Your task to perform on an android device: empty trash in google photos Image 0: 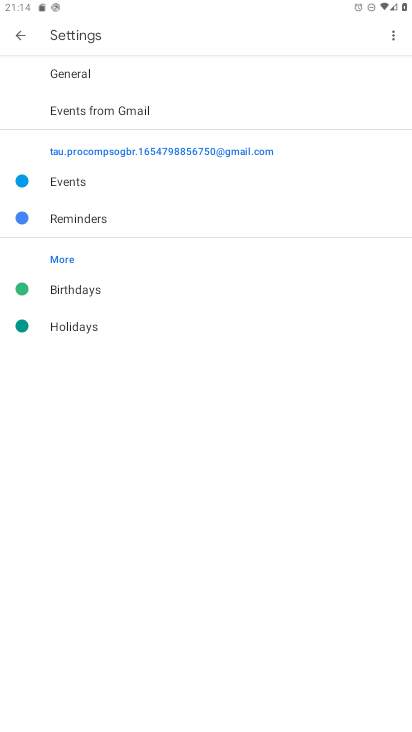
Step 0: press home button
Your task to perform on an android device: empty trash in google photos Image 1: 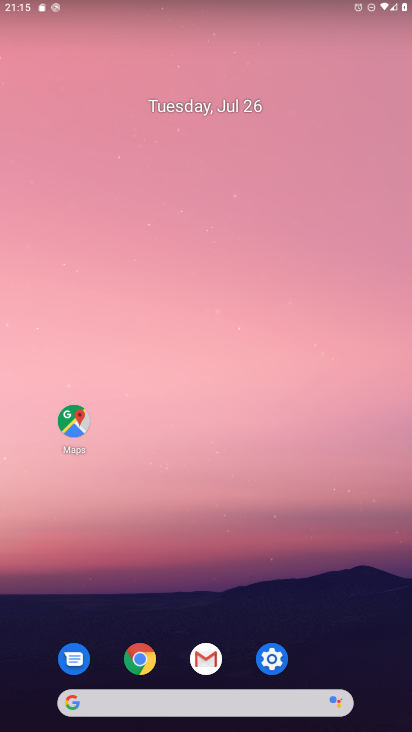
Step 1: drag from (275, 699) to (264, 179)
Your task to perform on an android device: empty trash in google photos Image 2: 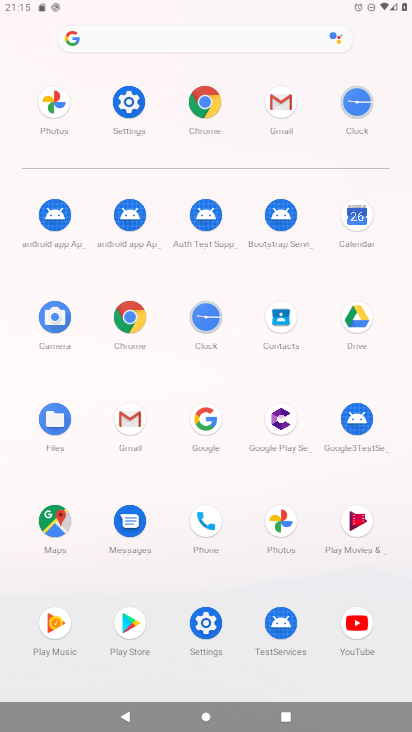
Step 2: click (49, 95)
Your task to perform on an android device: empty trash in google photos Image 3: 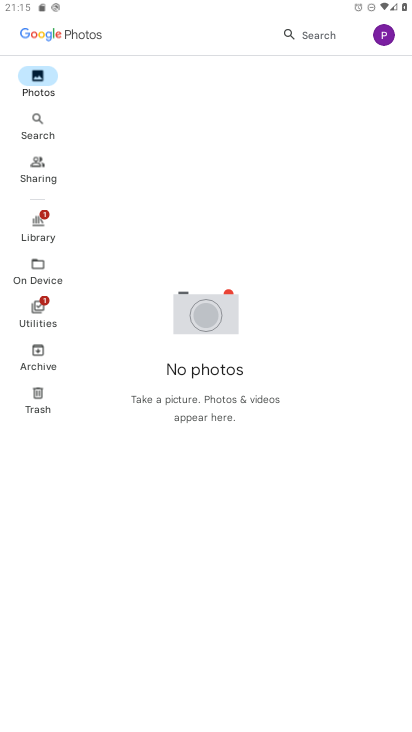
Step 3: click (24, 403)
Your task to perform on an android device: empty trash in google photos Image 4: 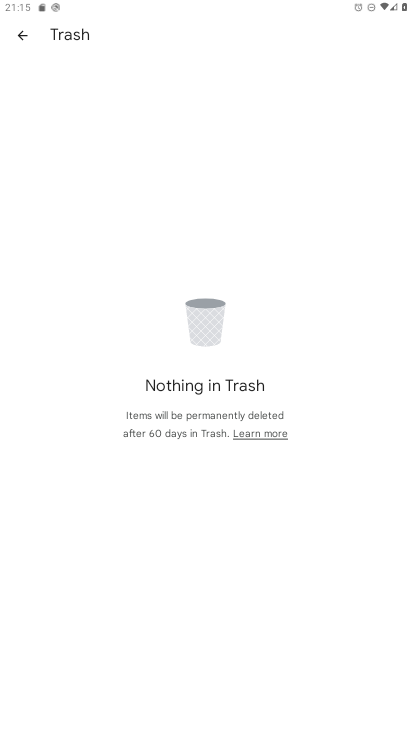
Step 4: click (38, 394)
Your task to perform on an android device: empty trash in google photos Image 5: 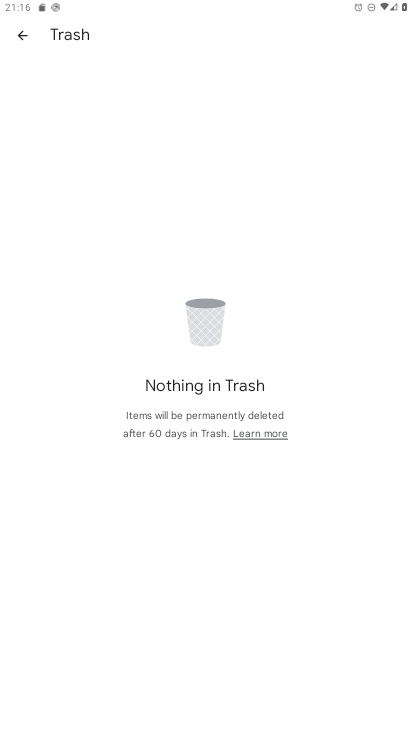
Step 5: task complete